Your task to perform on an android device: open a new tab in the chrome app Image 0: 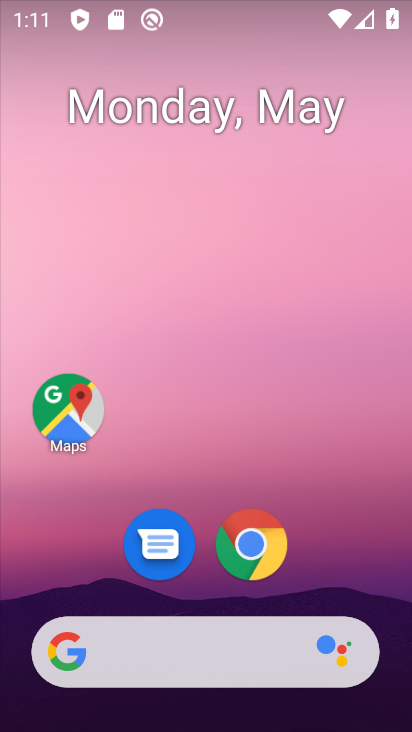
Step 0: drag from (362, 574) to (397, 221)
Your task to perform on an android device: open a new tab in the chrome app Image 1: 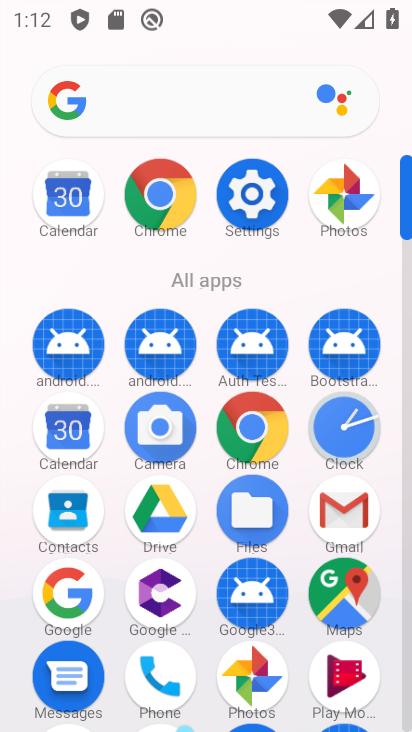
Step 1: click (269, 425)
Your task to perform on an android device: open a new tab in the chrome app Image 2: 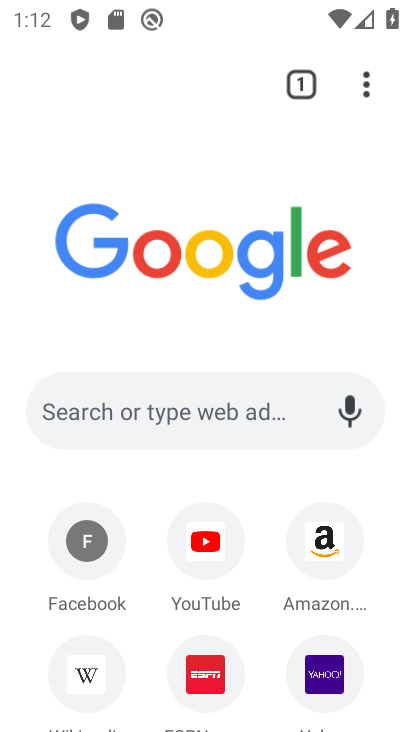
Step 2: click (366, 98)
Your task to perform on an android device: open a new tab in the chrome app Image 3: 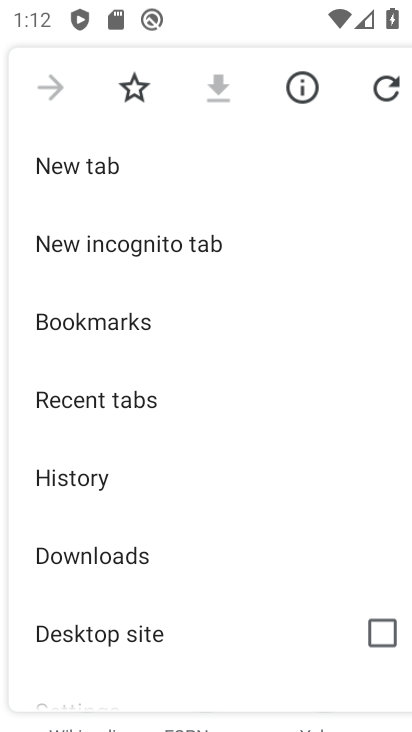
Step 3: click (105, 171)
Your task to perform on an android device: open a new tab in the chrome app Image 4: 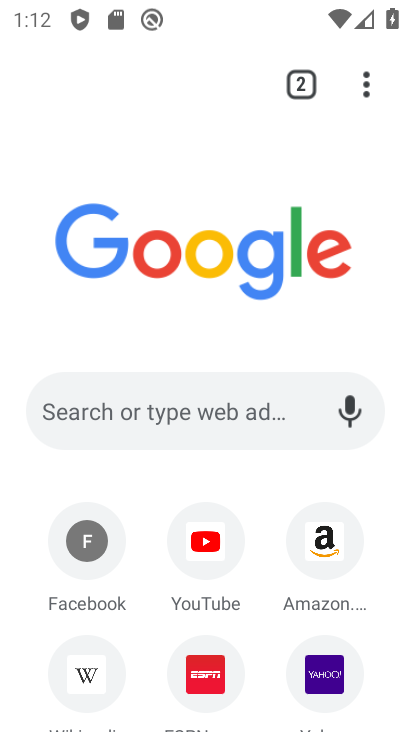
Step 4: task complete